Your task to perform on an android device: empty trash in the gmail app Image 0: 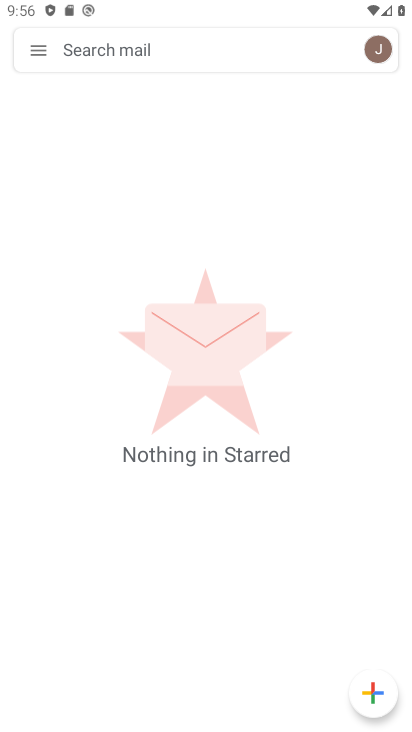
Step 0: press home button
Your task to perform on an android device: empty trash in the gmail app Image 1: 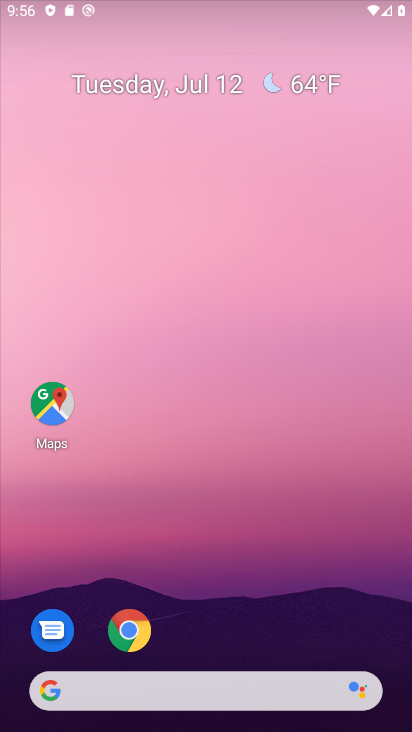
Step 1: drag from (275, 654) to (190, 28)
Your task to perform on an android device: empty trash in the gmail app Image 2: 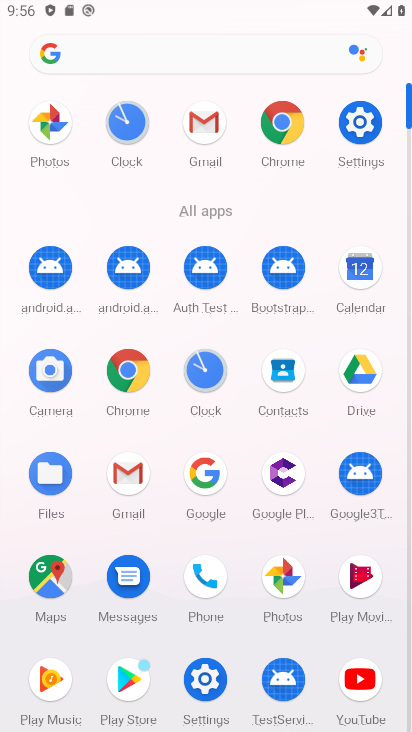
Step 2: click (199, 116)
Your task to perform on an android device: empty trash in the gmail app Image 3: 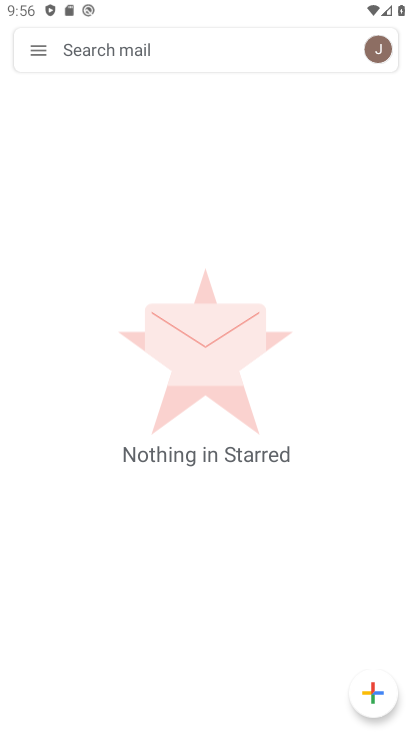
Step 3: click (40, 56)
Your task to perform on an android device: empty trash in the gmail app Image 4: 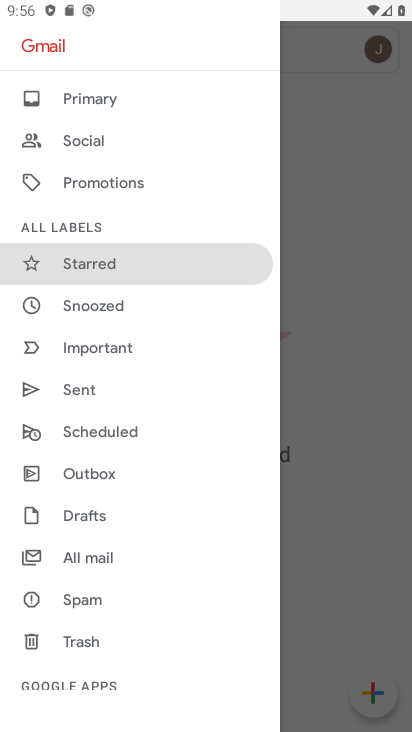
Step 4: drag from (134, 597) to (160, 304)
Your task to perform on an android device: empty trash in the gmail app Image 5: 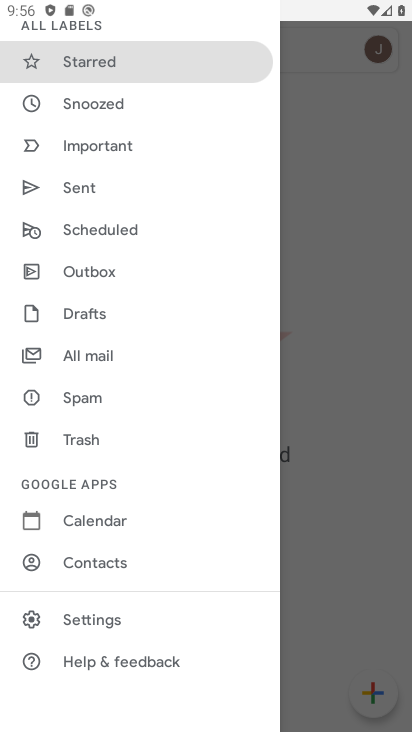
Step 5: click (86, 440)
Your task to perform on an android device: empty trash in the gmail app Image 6: 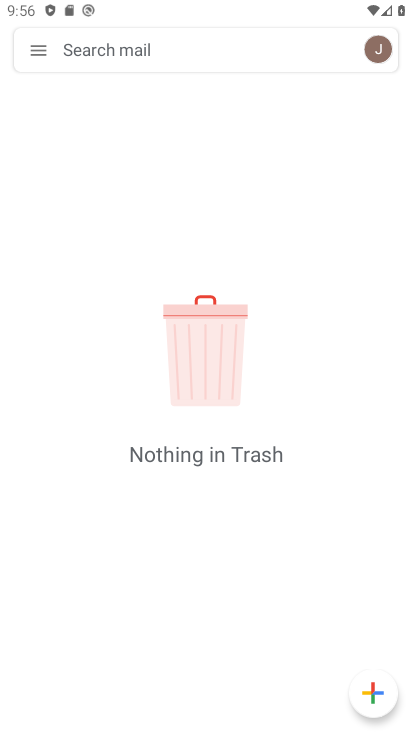
Step 6: task complete